Your task to perform on an android device: turn on priority inbox in the gmail app Image 0: 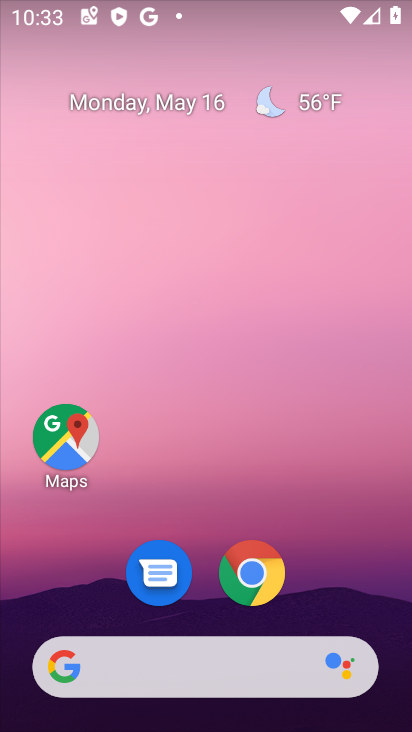
Step 0: drag from (321, 573) to (286, 206)
Your task to perform on an android device: turn on priority inbox in the gmail app Image 1: 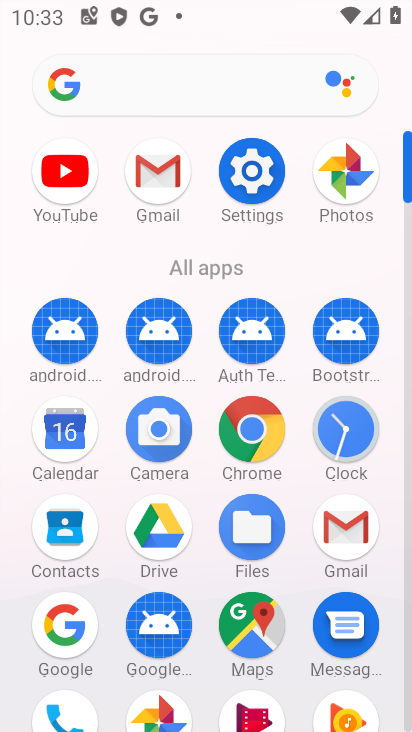
Step 1: click (332, 521)
Your task to perform on an android device: turn on priority inbox in the gmail app Image 2: 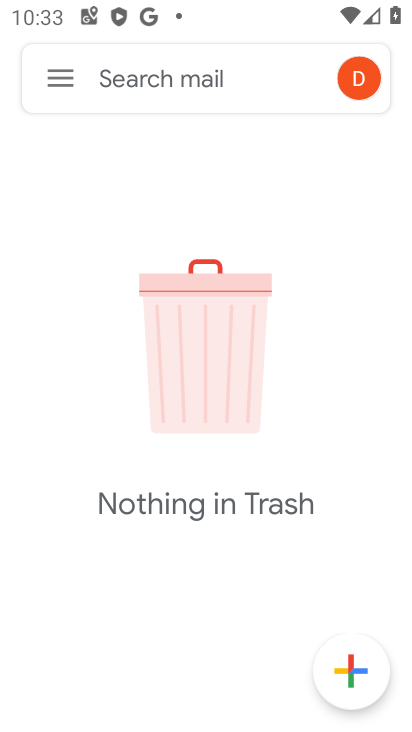
Step 2: click (60, 74)
Your task to perform on an android device: turn on priority inbox in the gmail app Image 3: 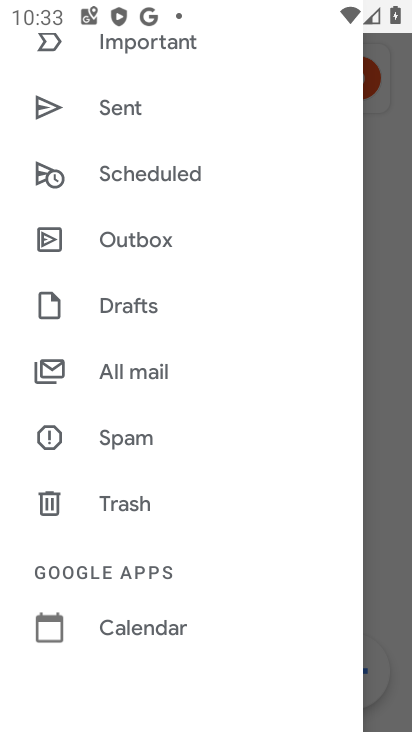
Step 3: drag from (181, 542) to (241, 221)
Your task to perform on an android device: turn on priority inbox in the gmail app Image 4: 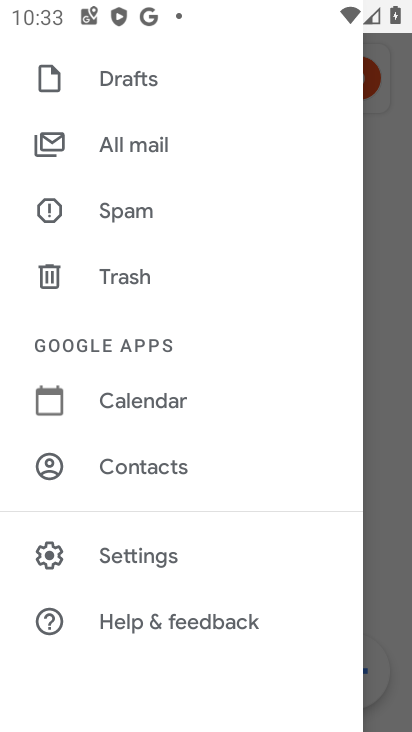
Step 4: click (181, 549)
Your task to perform on an android device: turn on priority inbox in the gmail app Image 5: 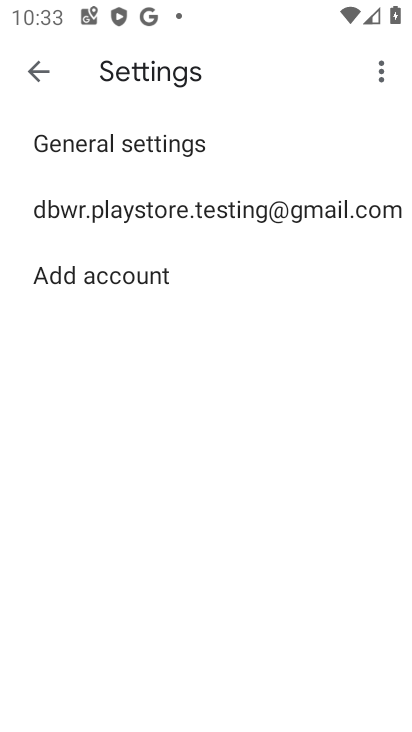
Step 5: click (274, 204)
Your task to perform on an android device: turn on priority inbox in the gmail app Image 6: 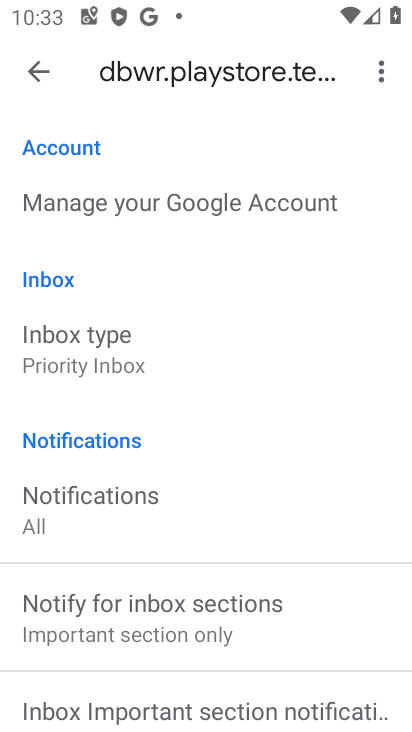
Step 6: task complete